Your task to perform on an android device: open a bookmark in the chrome app Image 0: 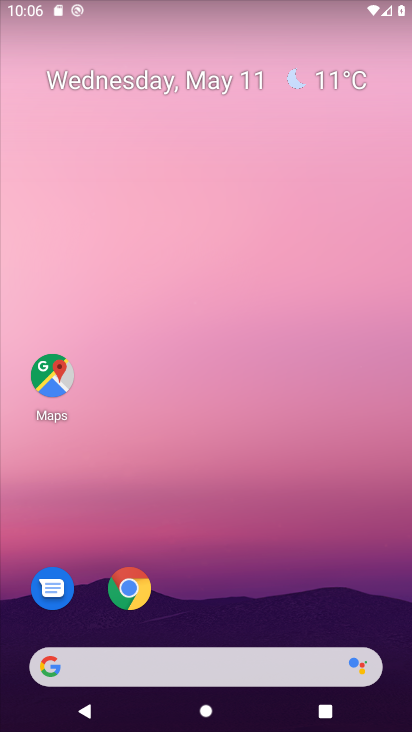
Step 0: click (135, 588)
Your task to perform on an android device: open a bookmark in the chrome app Image 1: 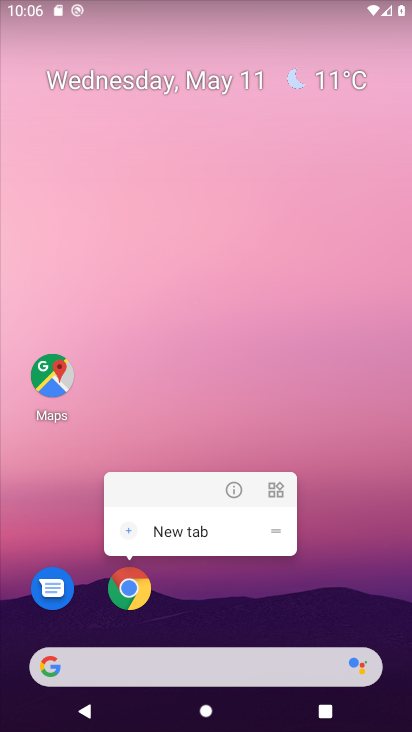
Step 1: click (105, 592)
Your task to perform on an android device: open a bookmark in the chrome app Image 2: 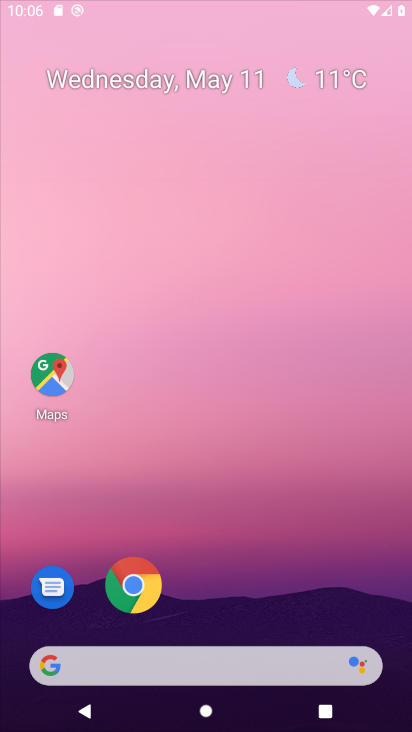
Step 2: click (130, 599)
Your task to perform on an android device: open a bookmark in the chrome app Image 3: 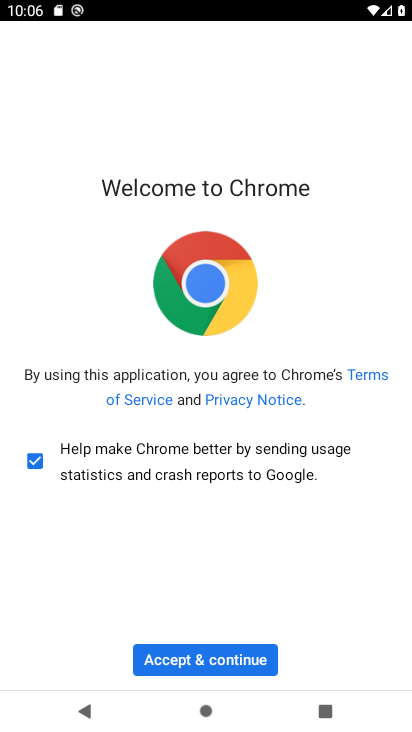
Step 3: click (214, 651)
Your task to perform on an android device: open a bookmark in the chrome app Image 4: 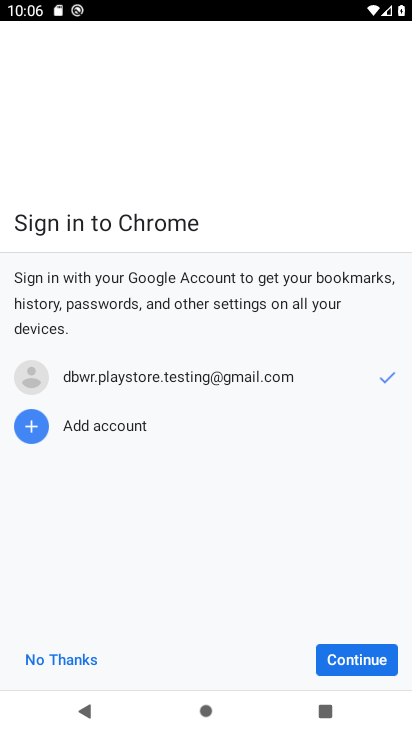
Step 4: click (376, 667)
Your task to perform on an android device: open a bookmark in the chrome app Image 5: 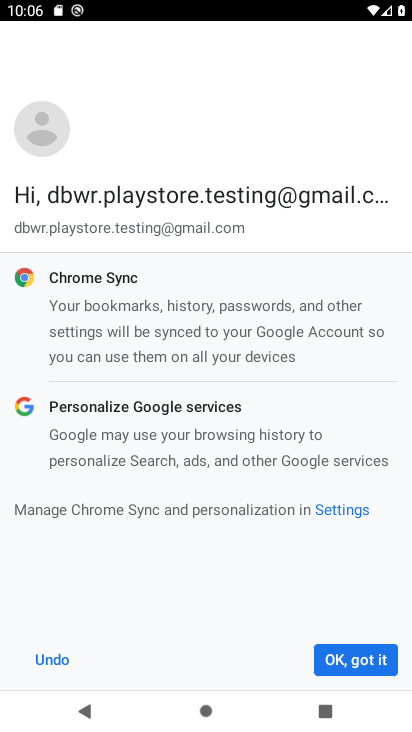
Step 5: click (376, 667)
Your task to perform on an android device: open a bookmark in the chrome app Image 6: 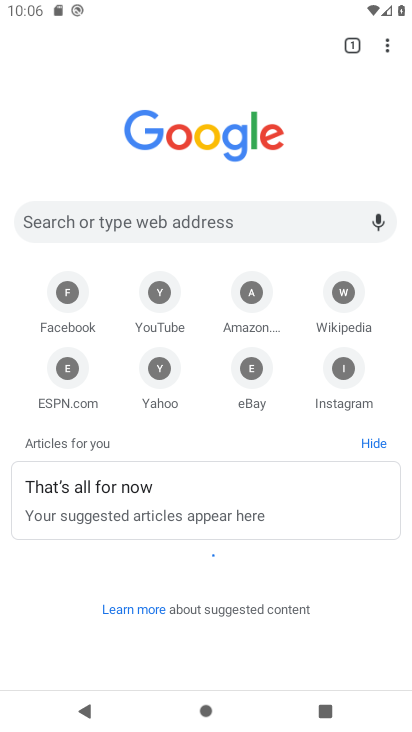
Step 6: click (385, 54)
Your task to perform on an android device: open a bookmark in the chrome app Image 7: 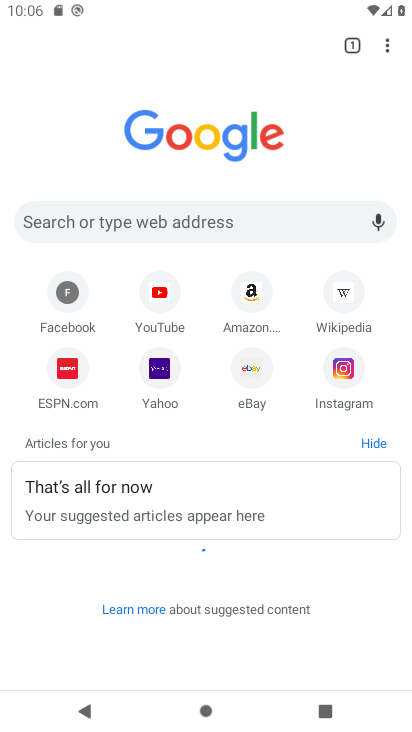
Step 7: click (390, 35)
Your task to perform on an android device: open a bookmark in the chrome app Image 8: 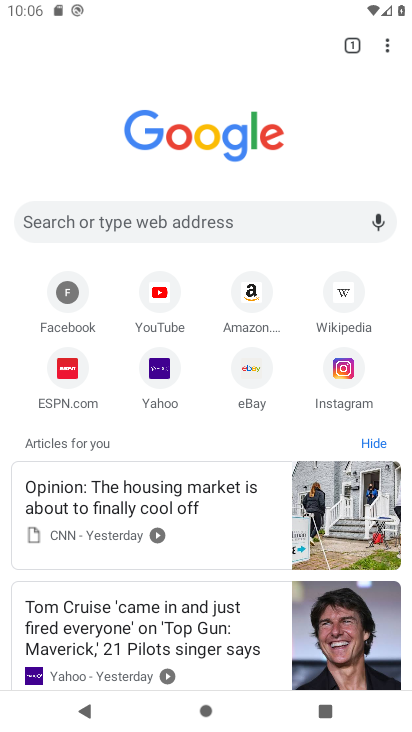
Step 8: drag from (390, 47) to (309, 169)
Your task to perform on an android device: open a bookmark in the chrome app Image 9: 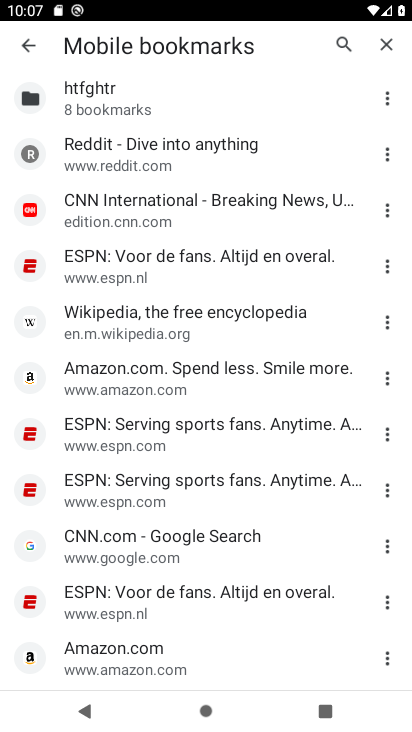
Step 9: click (134, 163)
Your task to perform on an android device: open a bookmark in the chrome app Image 10: 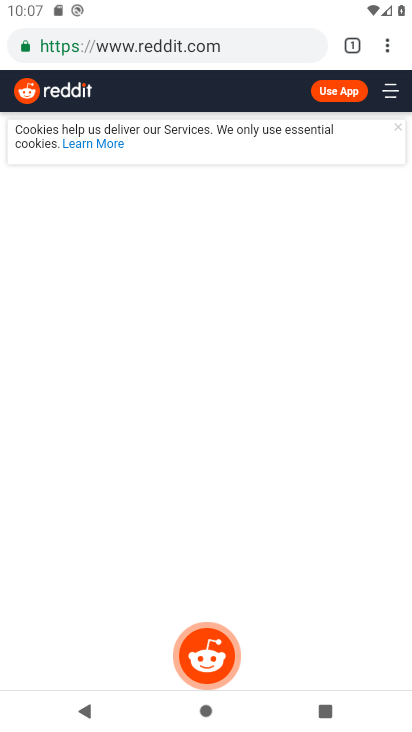
Step 10: task complete